Your task to perform on an android device: read, delete, or share a saved page in the chrome app Image 0: 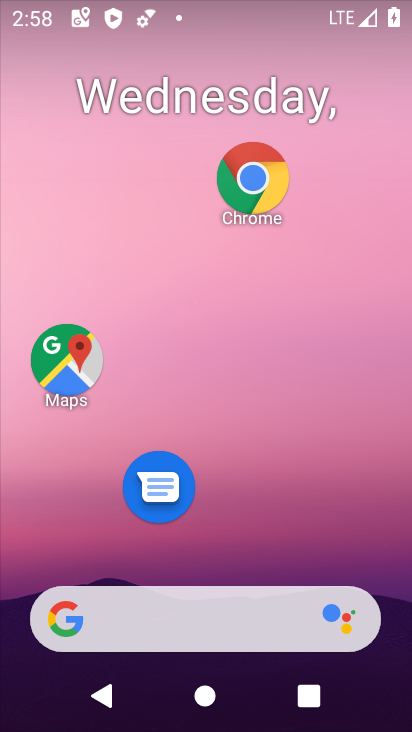
Step 0: click (254, 172)
Your task to perform on an android device: read, delete, or share a saved page in the chrome app Image 1: 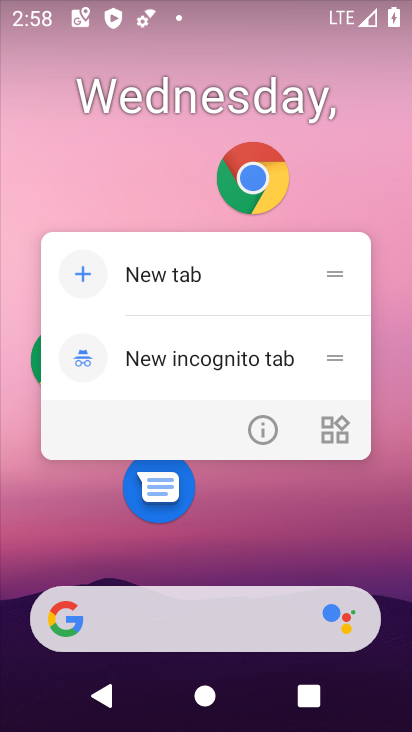
Step 1: click (255, 170)
Your task to perform on an android device: read, delete, or share a saved page in the chrome app Image 2: 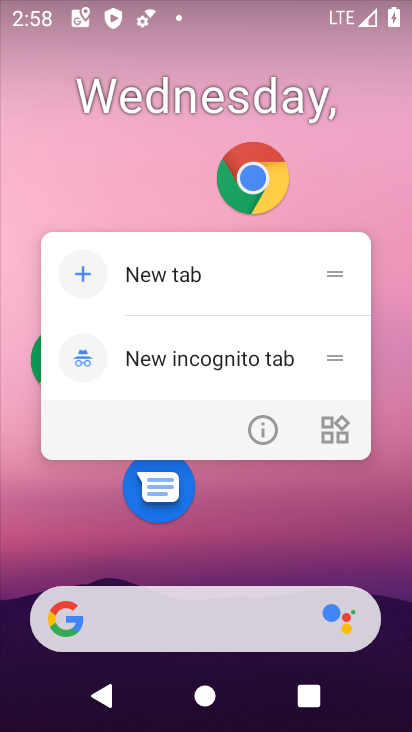
Step 2: click (260, 177)
Your task to perform on an android device: read, delete, or share a saved page in the chrome app Image 3: 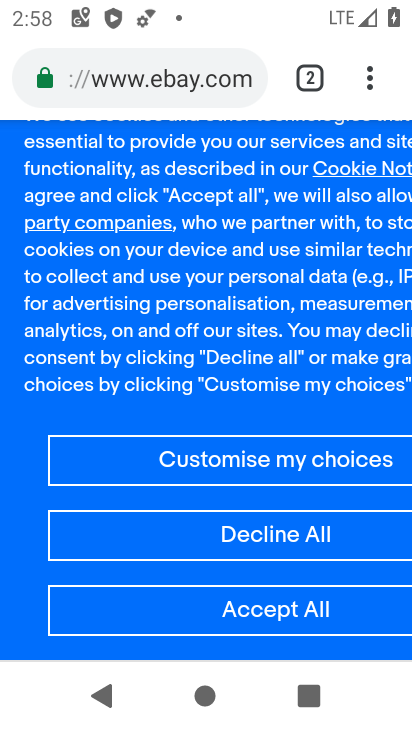
Step 3: click (371, 86)
Your task to perform on an android device: read, delete, or share a saved page in the chrome app Image 4: 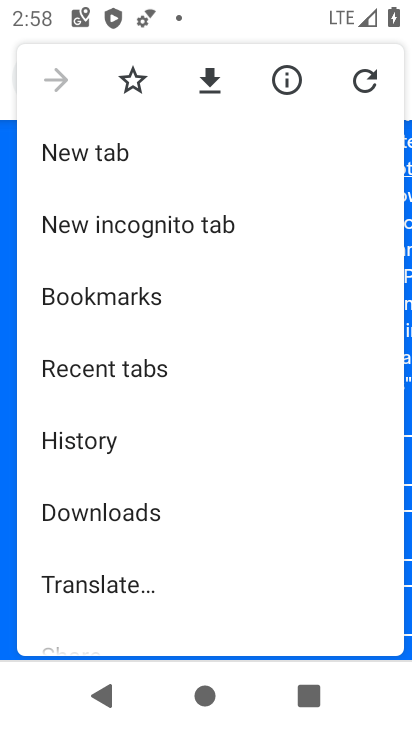
Step 4: click (92, 503)
Your task to perform on an android device: read, delete, or share a saved page in the chrome app Image 5: 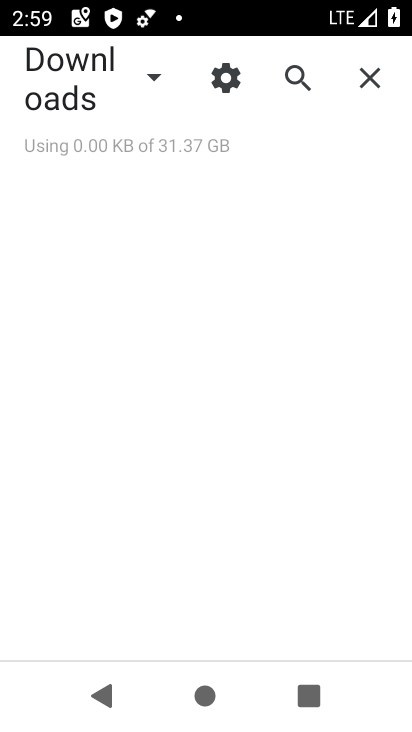
Step 5: click (161, 74)
Your task to perform on an android device: read, delete, or share a saved page in the chrome app Image 6: 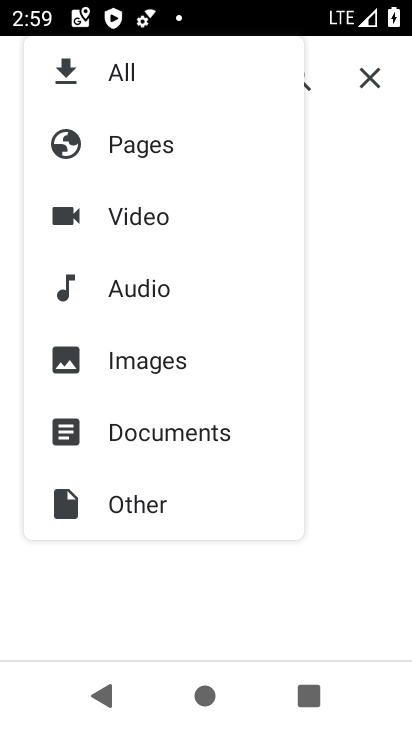
Step 6: click (180, 156)
Your task to perform on an android device: read, delete, or share a saved page in the chrome app Image 7: 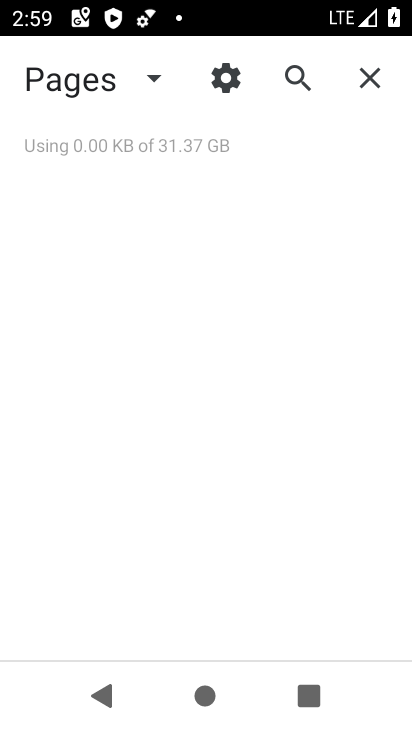
Step 7: task complete